Your task to perform on an android device: turn pop-ups on in chrome Image 0: 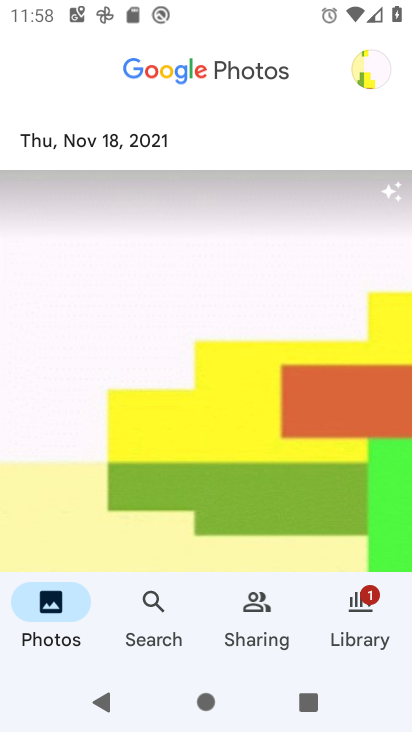
Step 0: press home button
Your task to perform on an android device: turn pop-ups on in chrome Image 1: 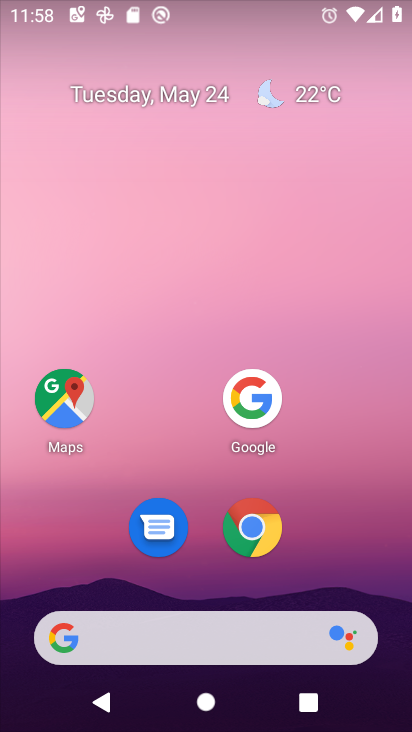
Step 1: drag from (210, 612) to (346, 110)
Your task to perform on an android device: turn pop-ups on in chrome Image 2: 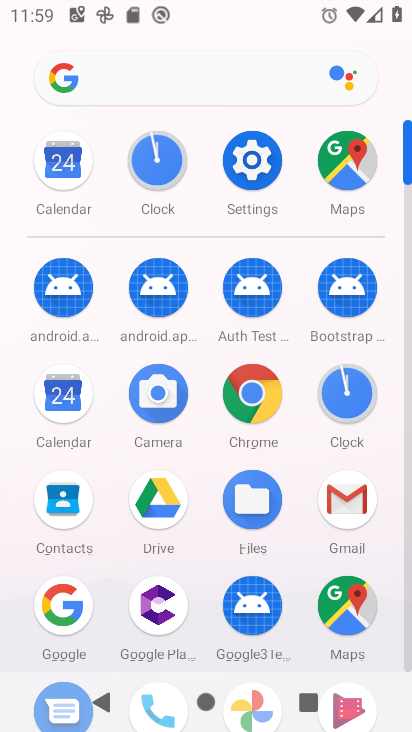
Step 2: click (263, 403)
Your task to perform on an android device: turn pop-ups on in chrome Image 3: 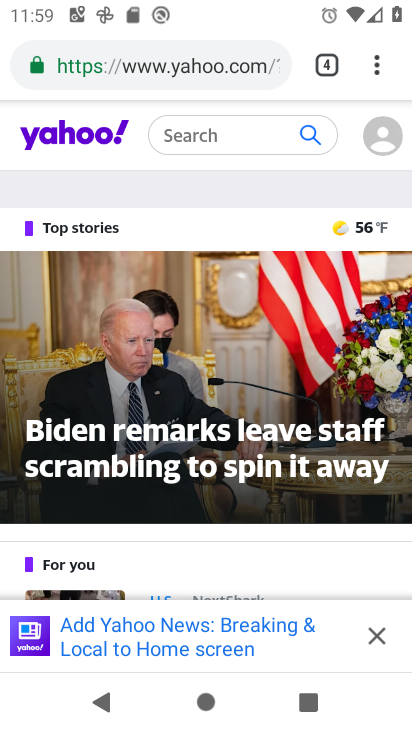
Step 3: drag from (372, 57) to (189, 576)
Your task to perform on an android device: turn pop-ups on in chrome Image 4: 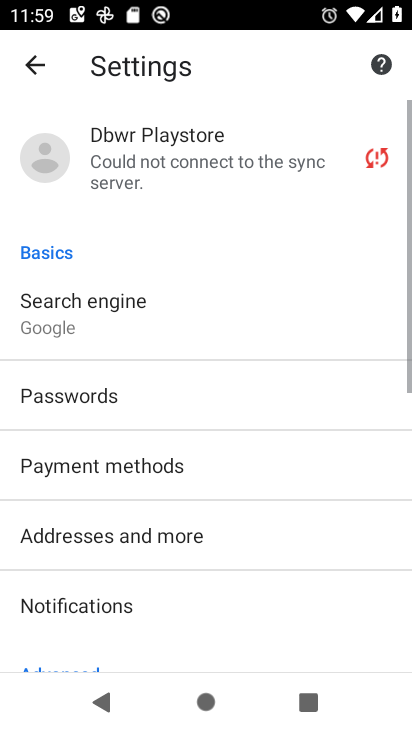
Step 4: drag from (174, 577) to (329, 82)
Your task to perform on an android device: turn pop-ups on in chrome Image 5: 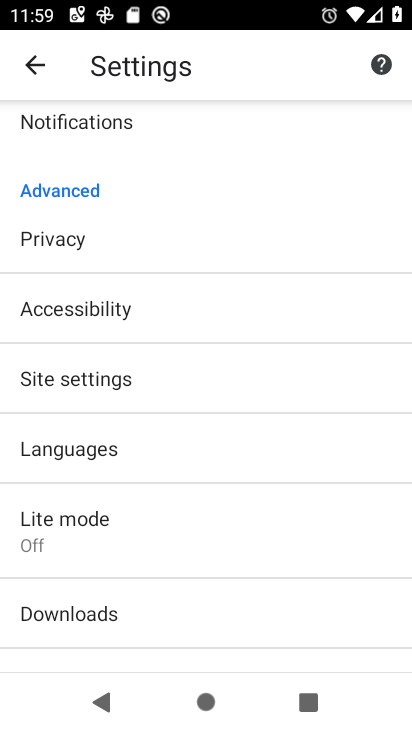
Step 5: click (90, 373)
Your task to perform on an android device: turn pop-ups on in chrome Image 6: 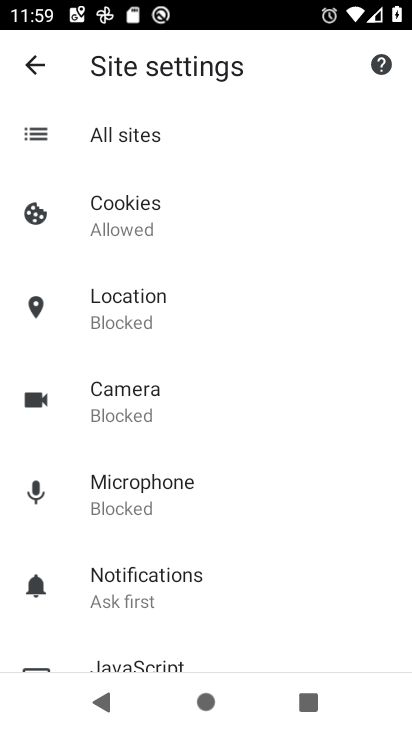
Step 6: drag from (173, 586) to (341, 93)
Your task to perform on an android device: turn pop-ups on in chrome Image 7: 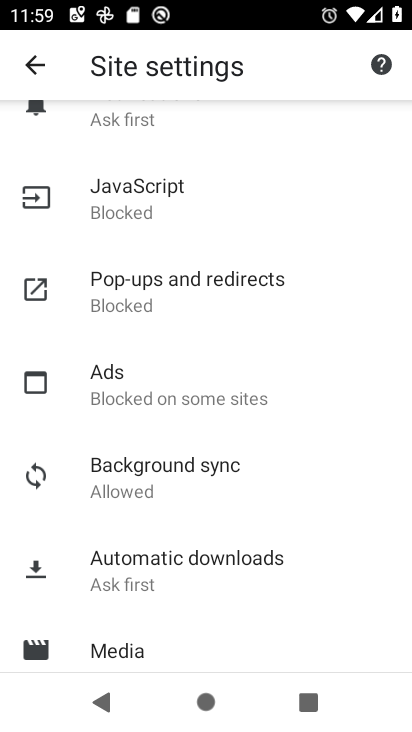
Step 7: click (194, 293)
Your task to perform on an android device: turn pop-ups on in chrome Image 8: 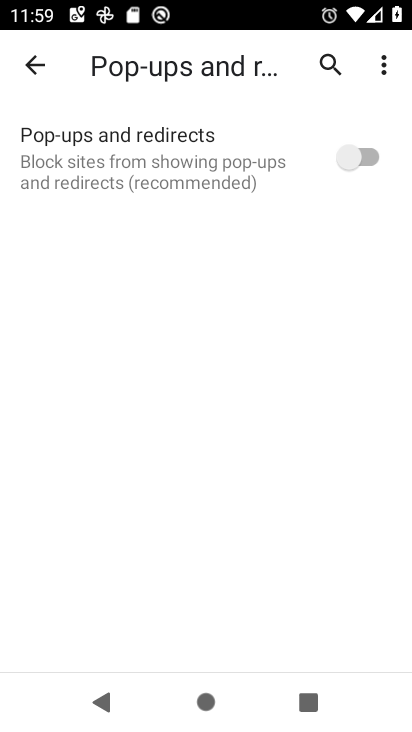
Step 8: click (371, 154)
Your task to perform on an android device: turn pop-ups on in chrome Image 9: 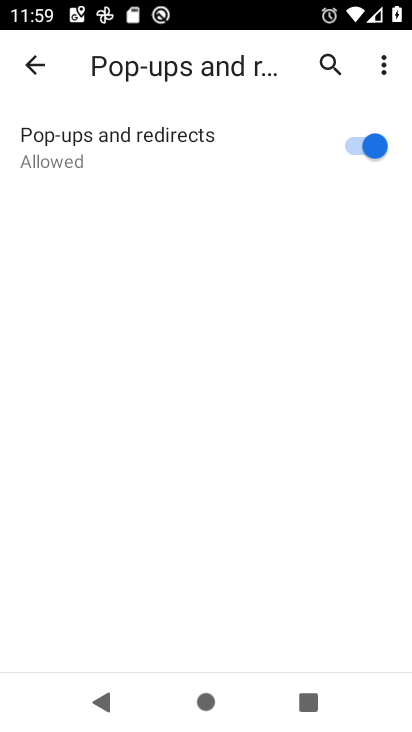
Step 9: task complete